Your task to perform on an android device: show emergency info Image 0: 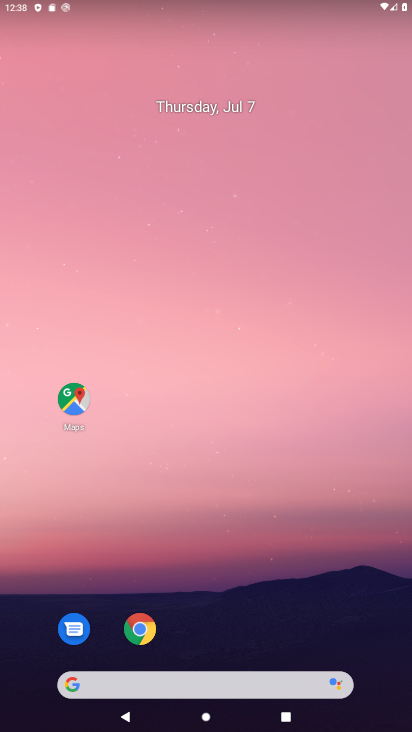
Step 0: drag from (267, 632) to (260, 196)
Your task to perform on an android device: show emergency info Image 1: 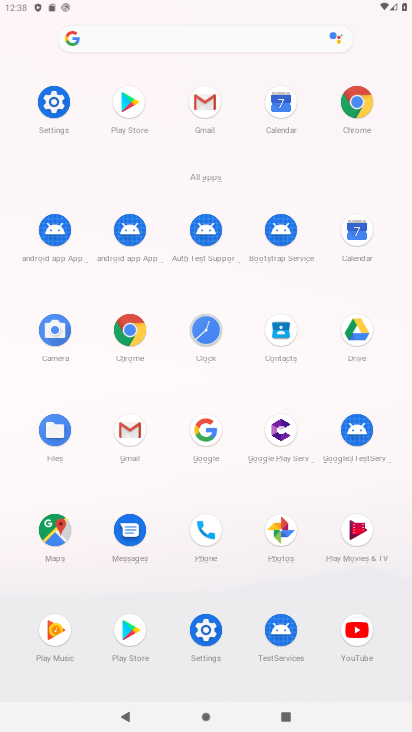
Step 1: click (208, 627)
Your task to perform on an android device: show emergency info Image 2: 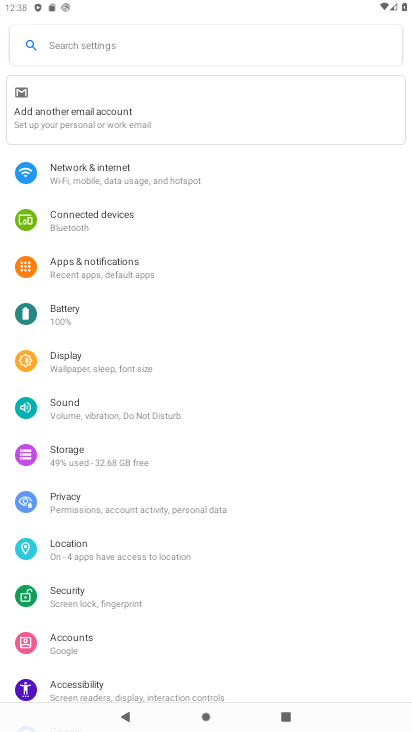
Step 2: drag from (88, 394) to (120, 336)
Your task to perform on an android device: show emergency info Image 3: 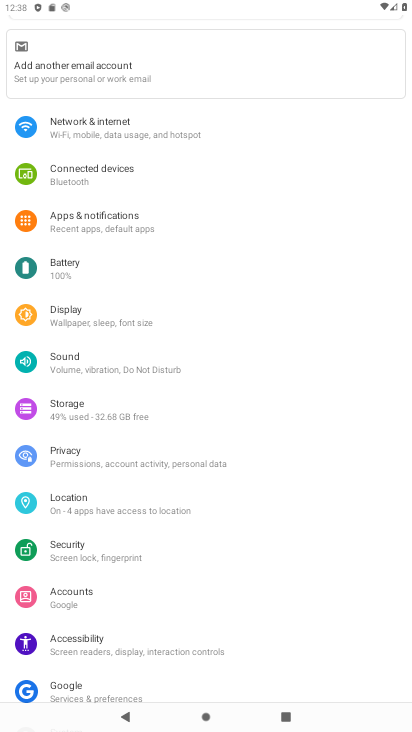
Step 3: drag from (96, 432) to (159, 344)
Your task to perform on an android device: show emergency info Image 4: 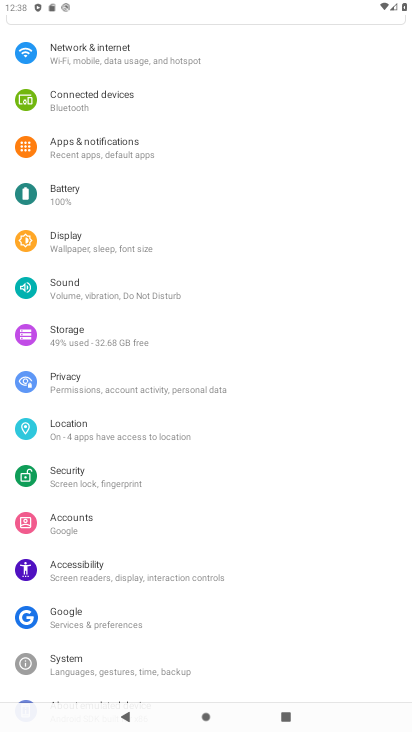
Step 4: drag from (107, 544) to (175, 414)
Your task to perform on an android device: show emergency info Image 5: 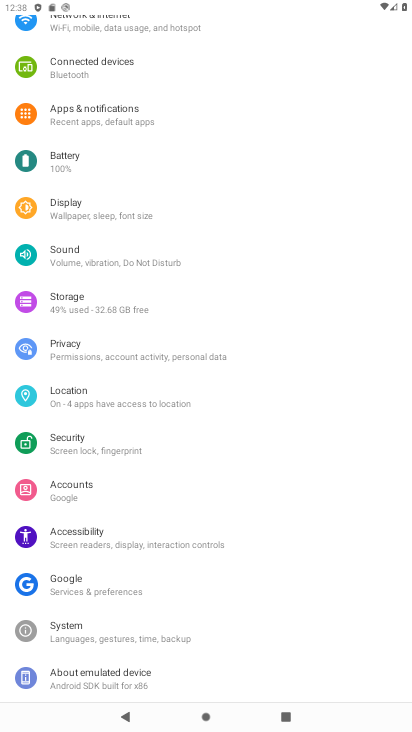
Step 5: click (107, 667)
Your task to perform on an android device: show emergency info Image 6: 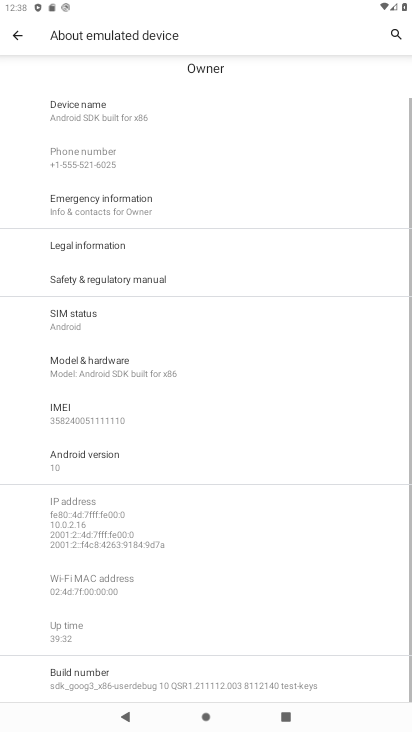
Step 6: click (123, 207)
Your task to perform on an android device: show emergency info Image 7: 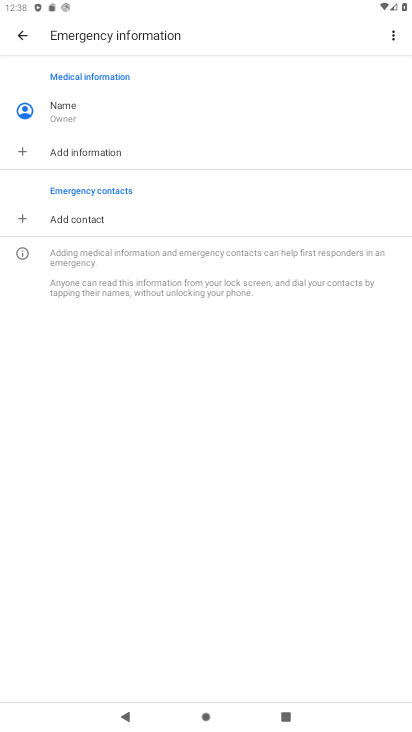
Step 7: task complete